Your task to perform on an android device: Go to calendar. Show me events next week Image 0: 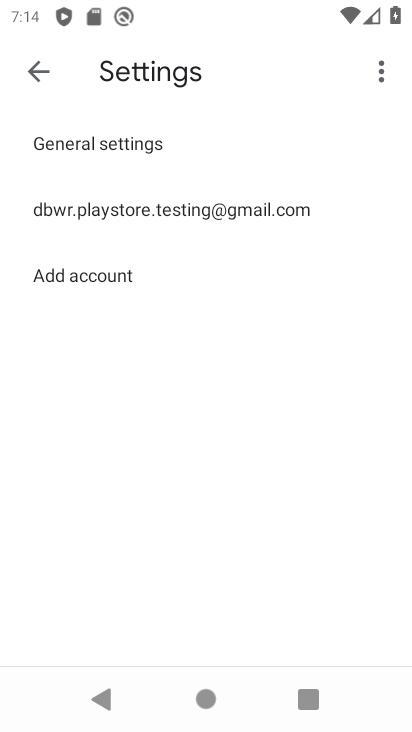
Step 0: press home button
Your task to perform on an android device: Go to calendar. Show me events next week Image 1: 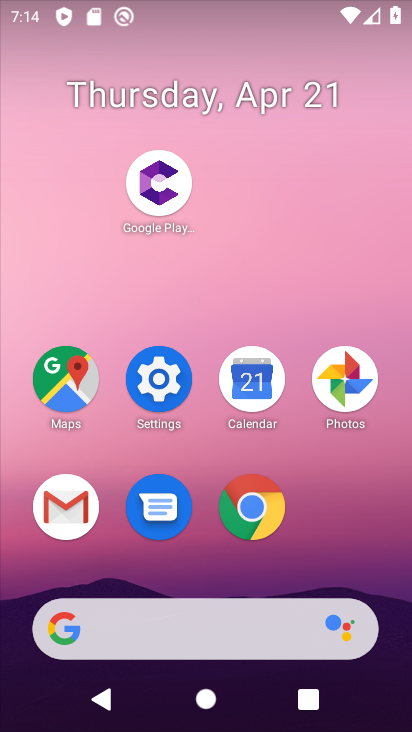
Step 1: click (241, 383)
Your task to perform on an android device: Go to calendar. Show me events next week Image 2: 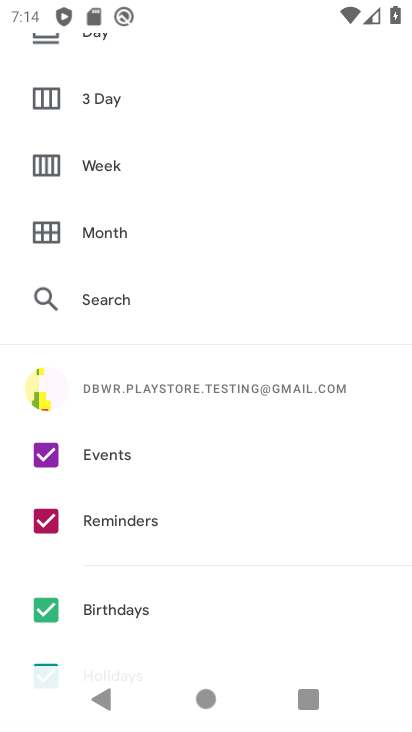
Step 2: press back button
Your task to perform on an android device: Go to calendar. Show me events next week Image 3: 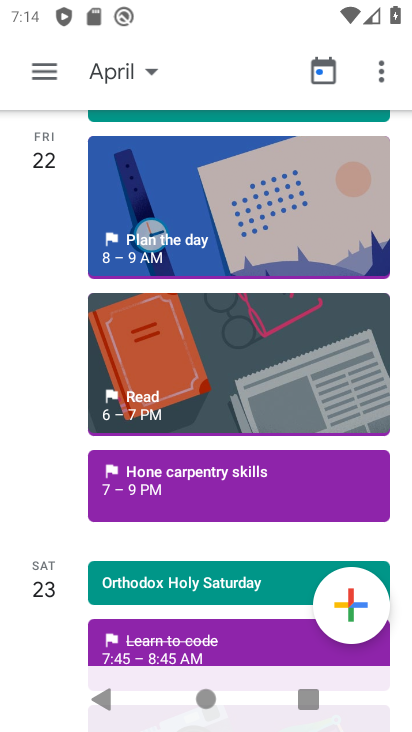
Step 3: click (37, 72)
Your task to perform on an android device: Go to calendar. Show me events next week Image 4: 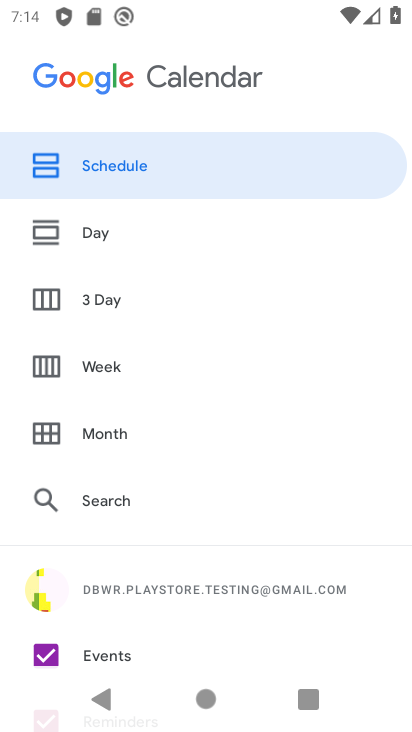
Step 4: click (105, 362)
Your task to perform on an android device: Go to calendar. Show me events next week Image 5: 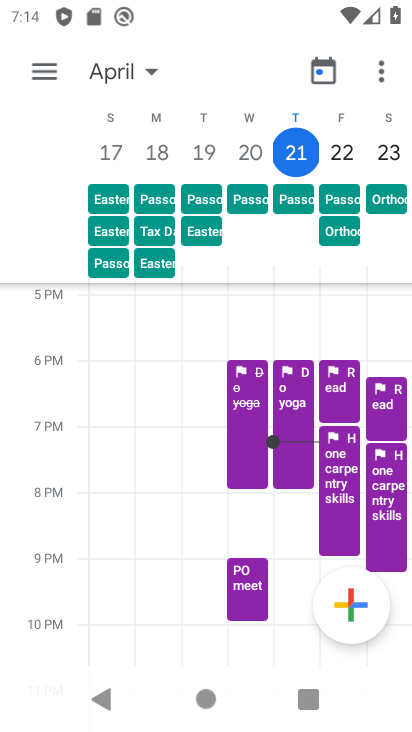
Step 5: click (149, 72)
Your task to perform on an android device: Go to calendar. Show me events next week Image 6: 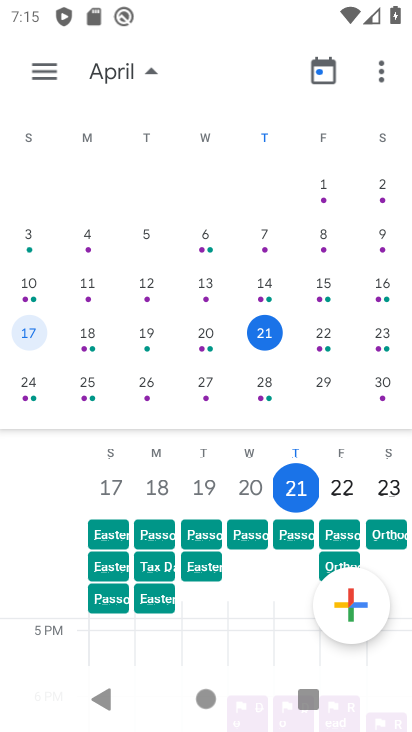
Step 6: click (147, 380)
Your task to perform on an android device: Go to calendar. Show me events next week Image 7: 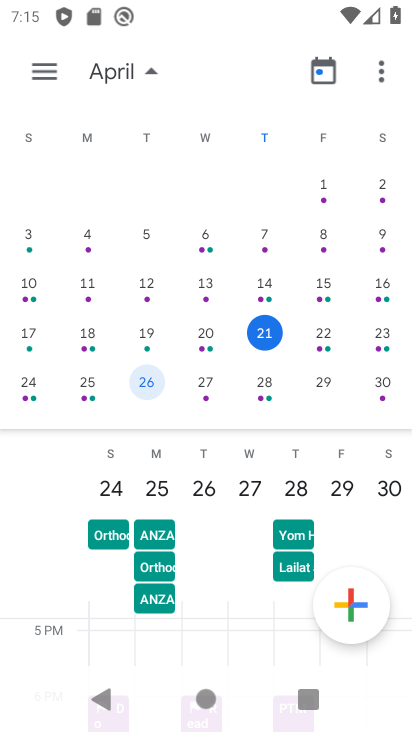
Step 7: task complete